Your task to perform on an android device: toggle translation in the chrome app Image 0: 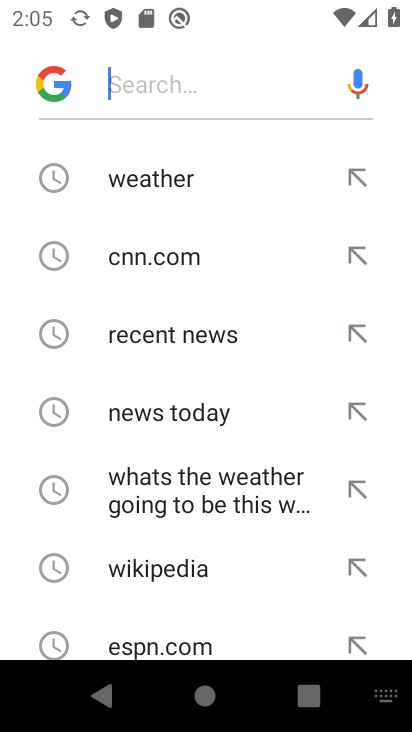
Step 0: press home button
Your task to perform on an android device: toggle translation in the chrome app Image 1: 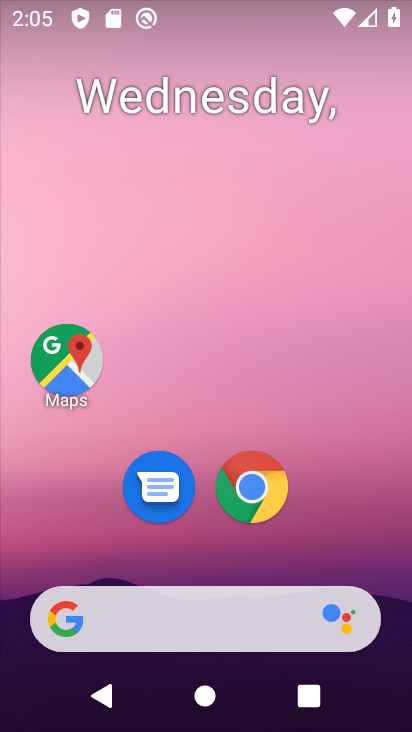
Step 1: click (261, 492)
Your task to perform on an android device: toggle translation in the chrome app Image 2: 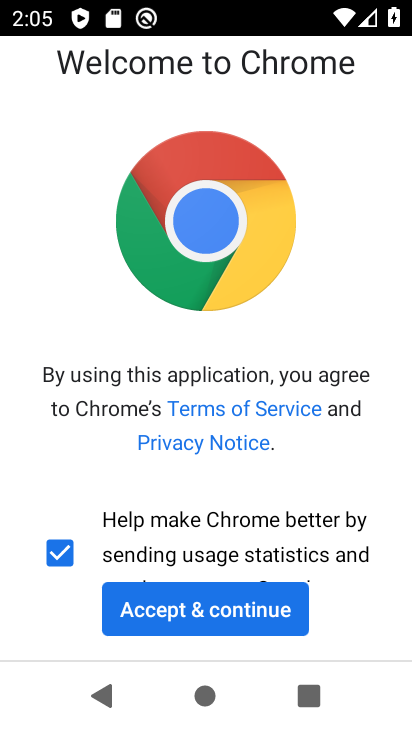
Step 2: click (193, 603)
Your task to perform on an android device: toggle translation in the chrome app Image 3: 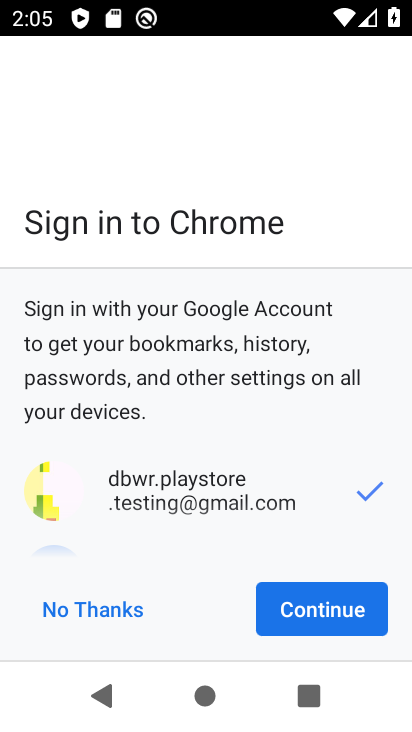
Step 3: click (328, 604)
Your task to perform on an android device: toggle translation in the chrome app Image 4: 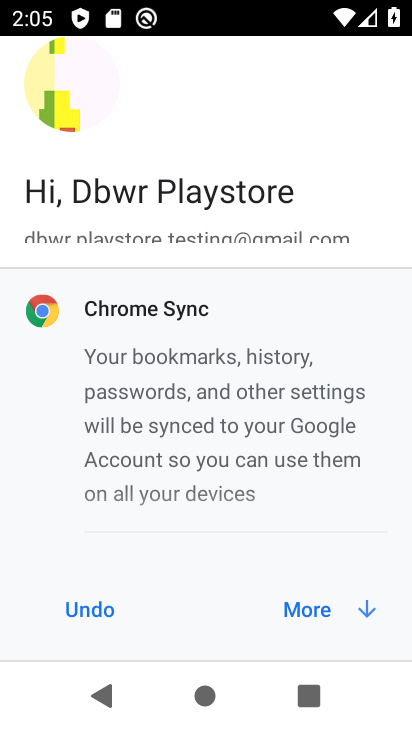
Step 4: click (328, 604)
Your task to perform on an android device: toggle translation in the chrome app Image 5: 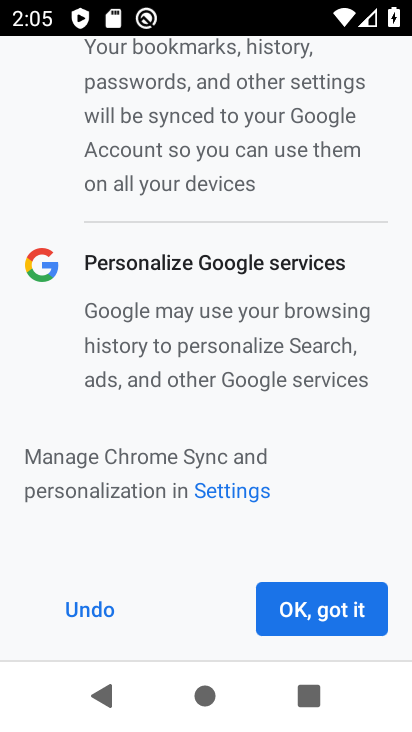
Step 5: click (328, 604)
Your task to perform on an android device: toggle translation in the chrome app Image 6: 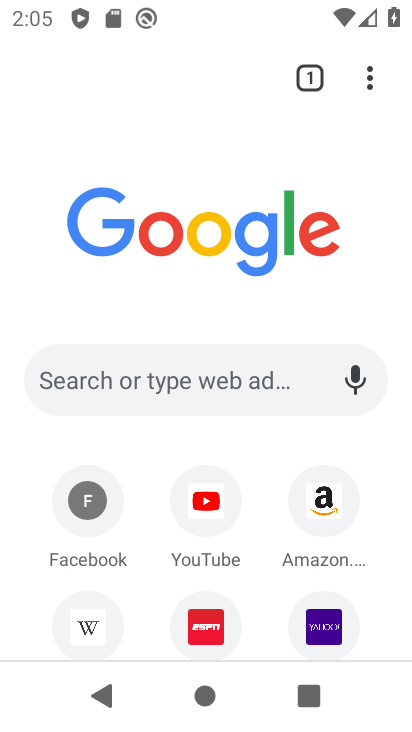
Step 6: click (371, 71)
Your task to perform on an android device: toggle translation in the chrome app Image 7: 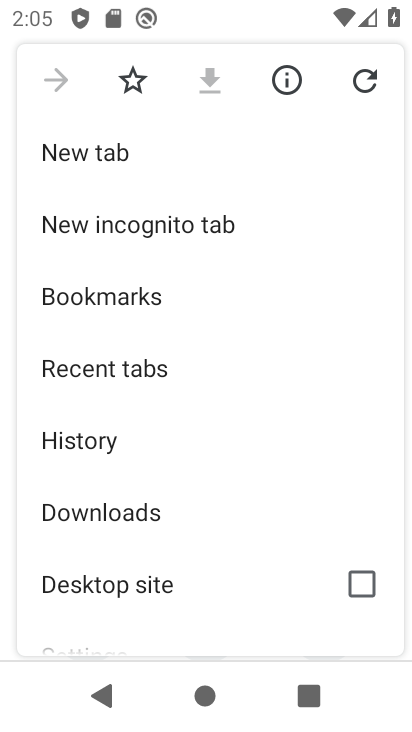
Step 7: drag from (187, 596) to (195, 310)
Your task to perform on an android device: toggle translation in the chrome app Image 8: 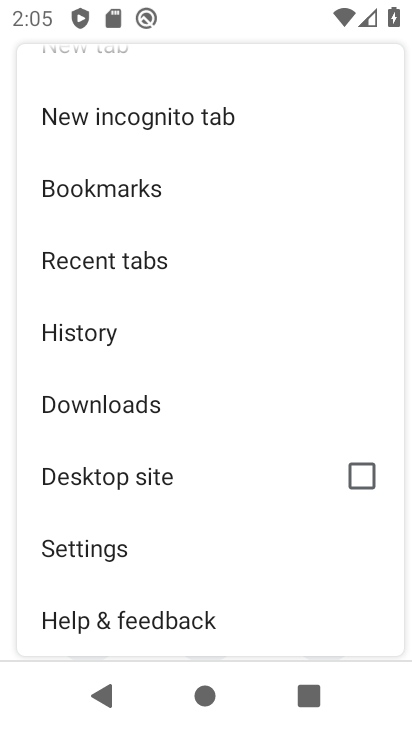
Step 8: click (114, 554)
Your task to perform on an android device: toggle translation in the chrome app Image 9: 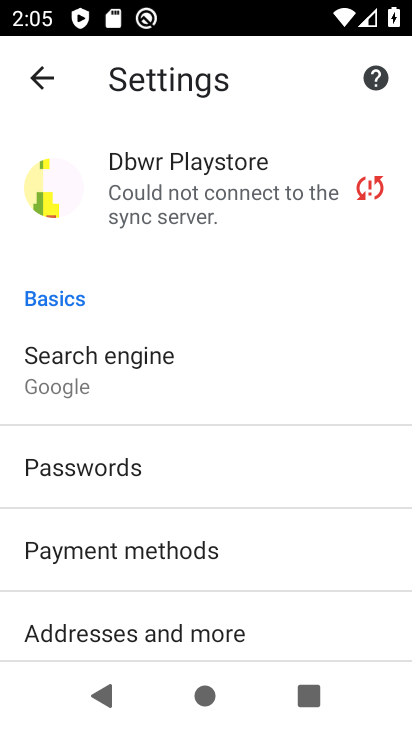
Step 9: drag from (130, 571) to (226, 181)
Your task to perform on an android device: toggle translation in the chrome app Image 10: 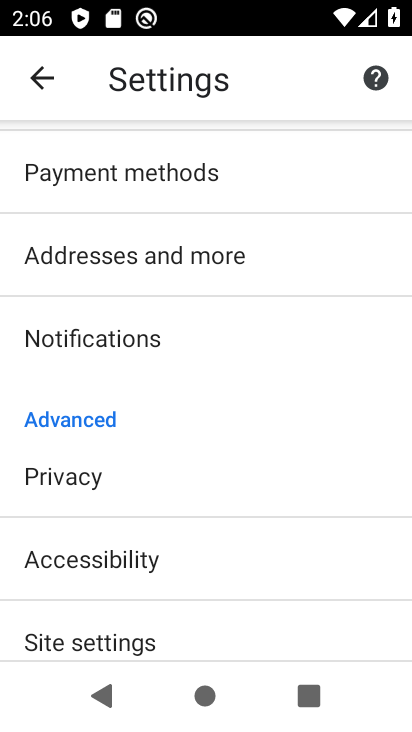
Step 10: drag from (158, 529) to (181, 348)
Your task to perform on an android device: toggle translation in the chrome app Image 11: 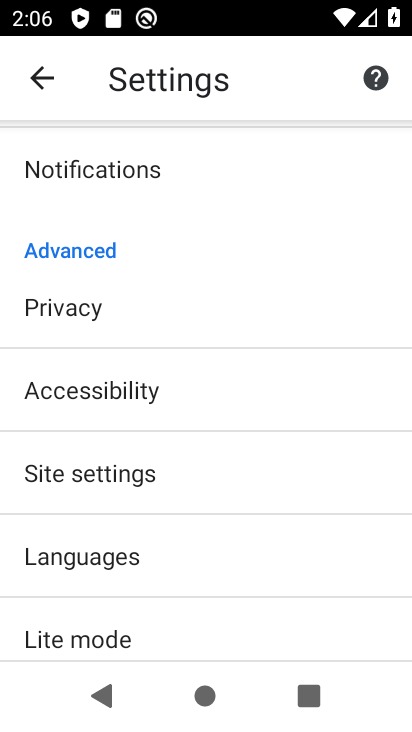
Step 11: drag from (169, 583) to (180, 302)
Your task to perform on an android device: toggle translation in the chrome app Image 12: 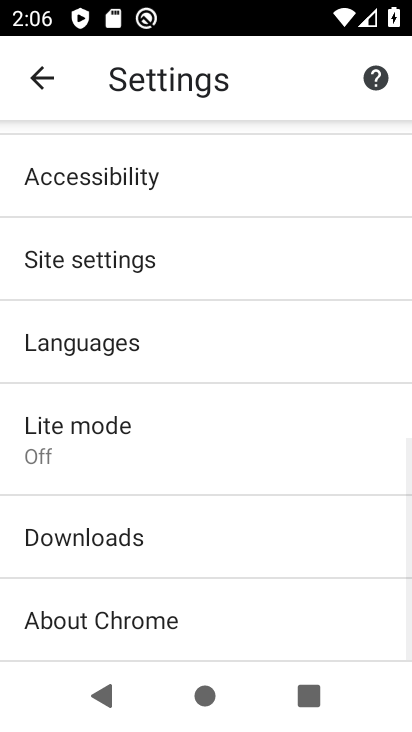
Step 12: drag from (171, 576) to (188, 334)
Your task to perform on an android device: toggle translation in the chrome app Image 13: 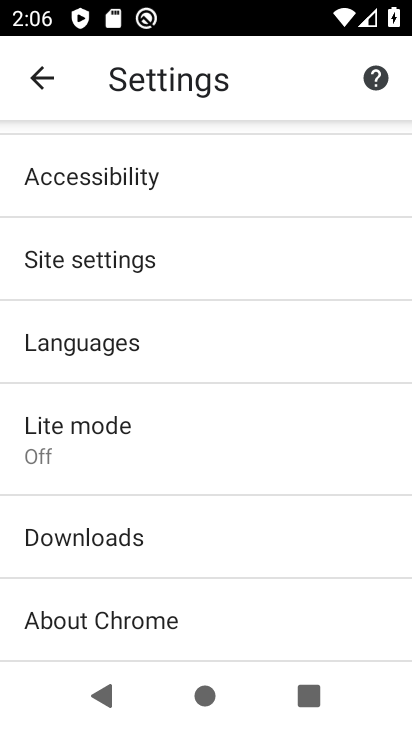
Step 13: drag from (188, 337) to (196, 498)
Your task to perform on an android device: toggle translation in the chrome app Image 14: 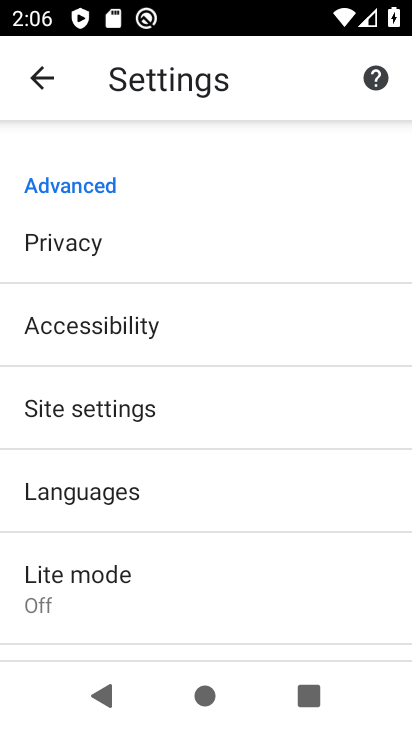
Step 14: click (196, 498)
Your task to perform on an android device: toggle translation in the chrome app Image 15: 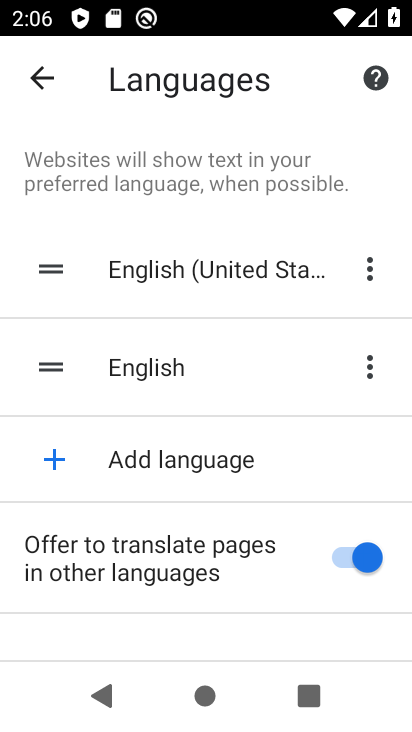
Step 15: task complete